Your task to perform on an android device: change text size in settings app Image 0: 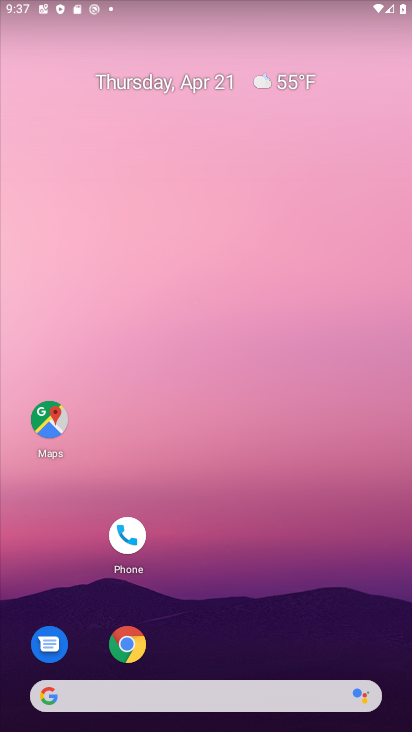
Step 0: drag from (229, 649) to (221, 235)
Your task to perform on an android device: change text size in settings app Image 1: 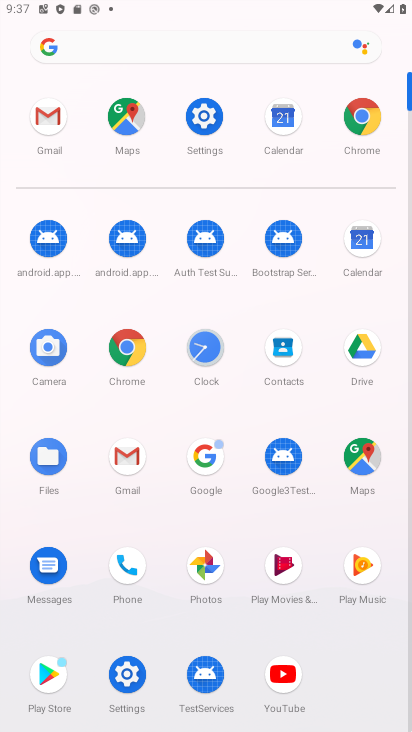
Step 1: click (126, 668)
Your task to perform on an android device: change text size in settings app Image 2: 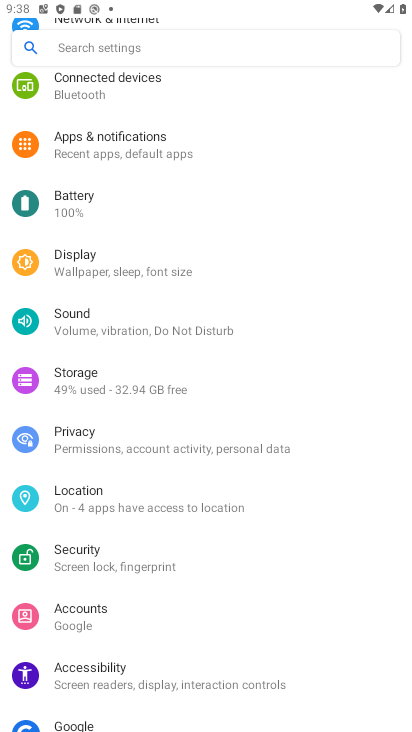
Step 2: drag from (182, 528) to (293, 124)
Your task to perform on an android device: change text size in settings app Image 3: 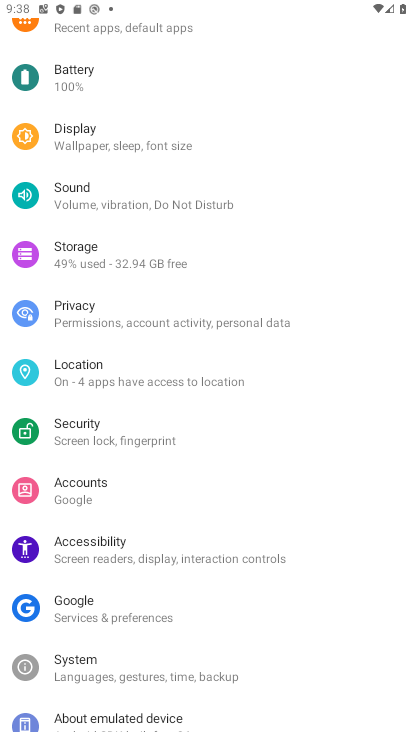
Step 3: drag from (199, 598) to (264, 266)
Your task to perform on an android device: change text size in settings app Image 4: 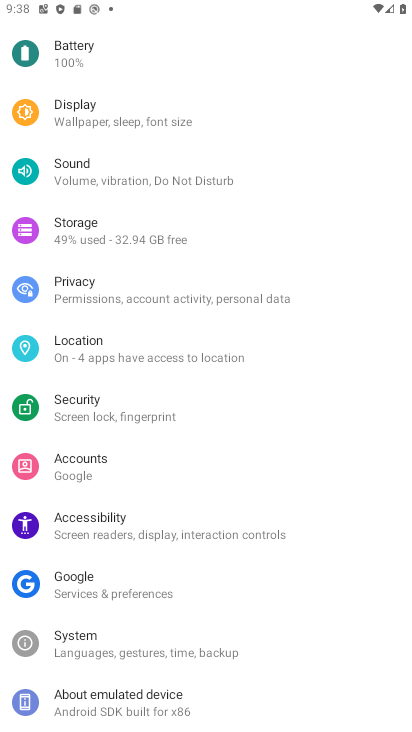
Step 4: click (113, 538)
Your task to perform on an android device: change text size in settings app Image 5: 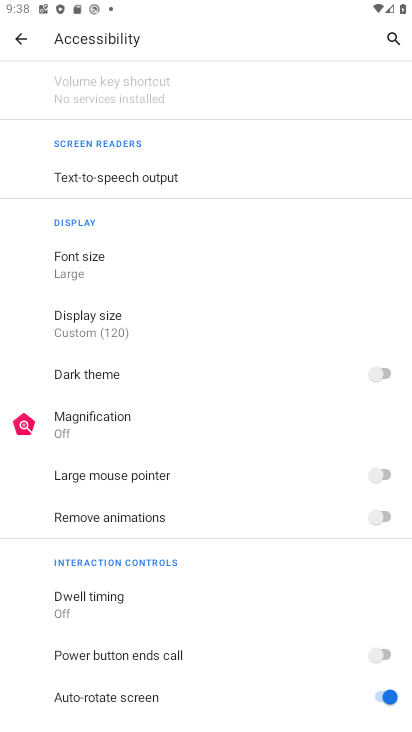
Step 5: click (72, 259)
Your task to perform on an android device: change text size in settings app Image 6: 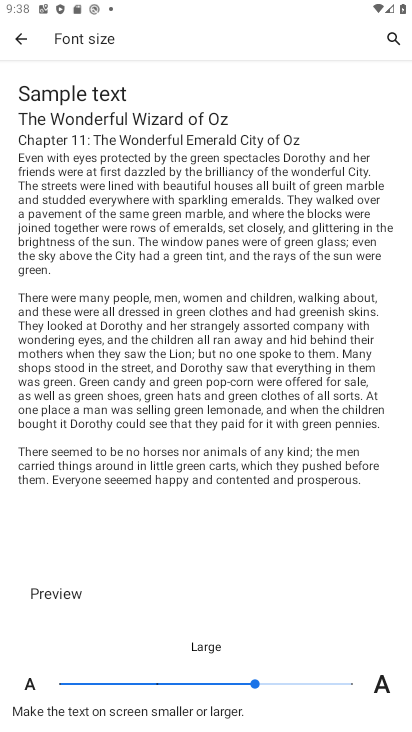
Step 6: click (156, 682)
Your task to perform on an android device: change text size in settings app Image 7: 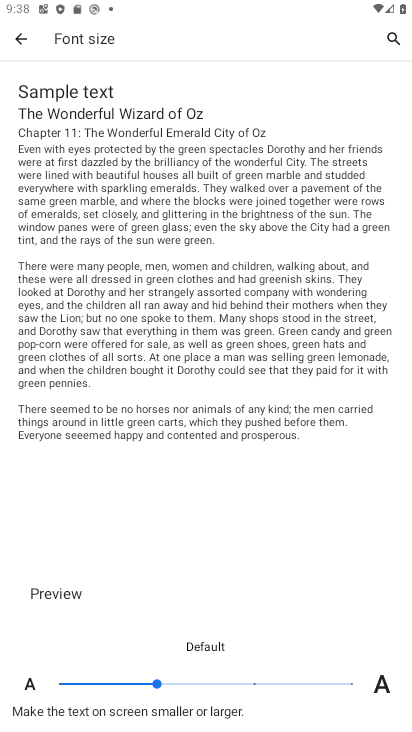
Step 7: click (98, 693)
Your task to perform on an android device: change text size in settings app Image 8: 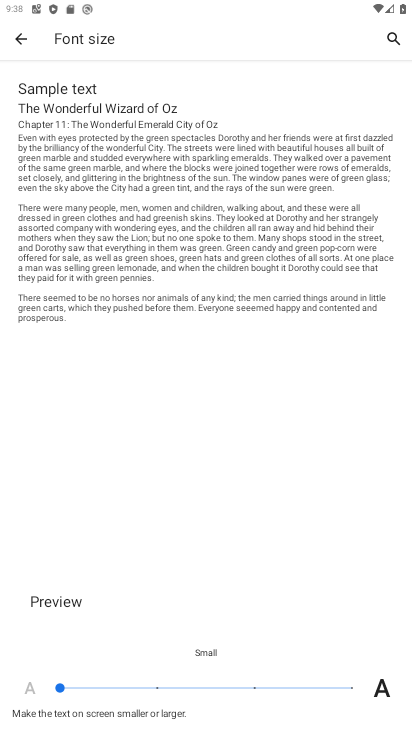
Step 8: task complete